Your task to perform on an android device: turn on wifi Image 0: 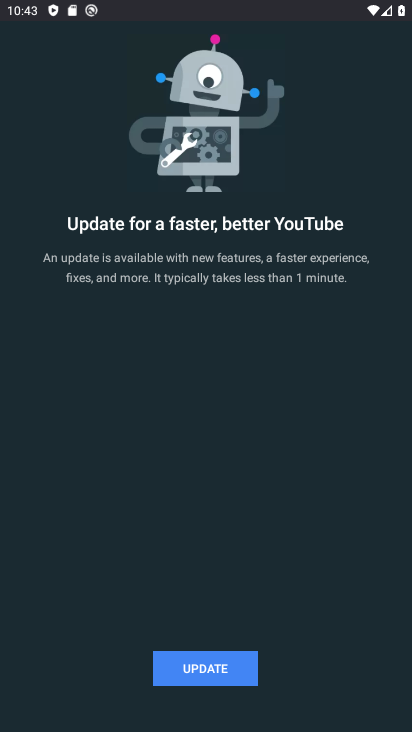
Step 0: press home button
Your task to perform on an android device: turn on wifi Image 1: 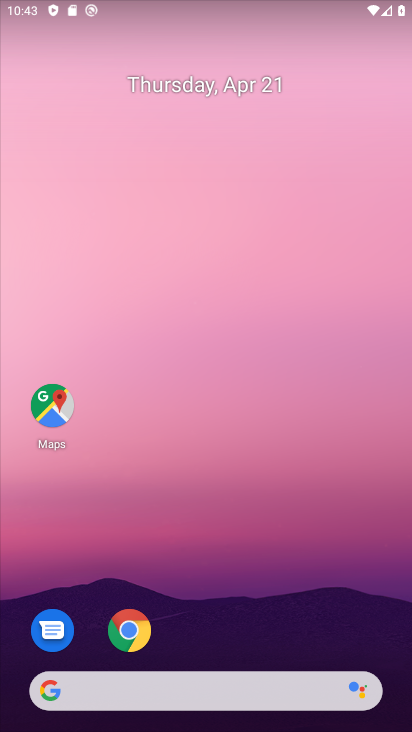
Step 1: task complete